Your task to perform on an android device: What's on my calendar today? Image 0: 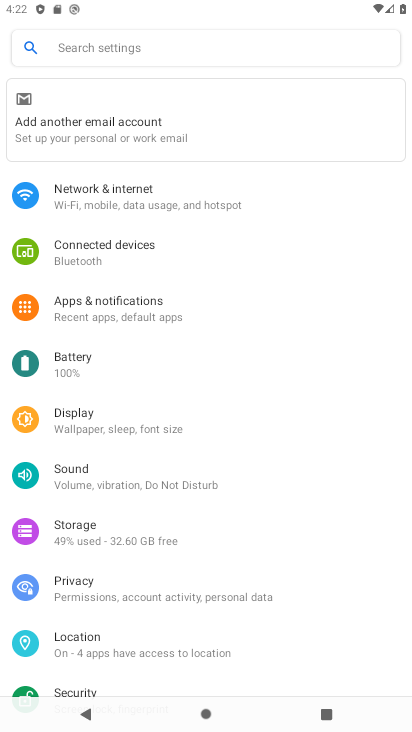
Step 0: press home button
Your task to perform on an android device: What's on my calendar today? Image 1: 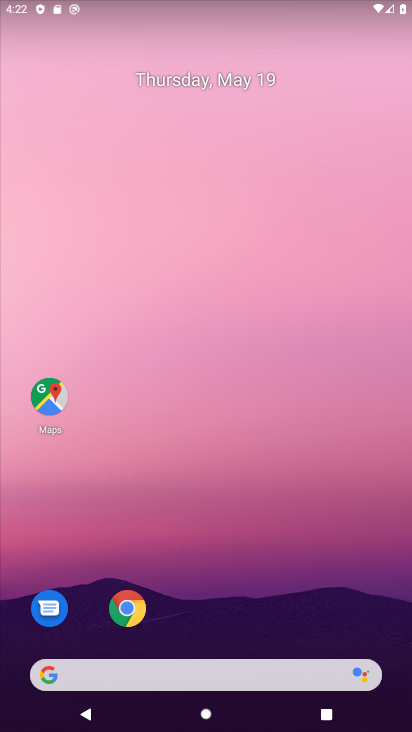
Step 1: drag from (271, 575) to (224, 192)
Your task to perform on an android device: What's on my calendar today? Image 2: 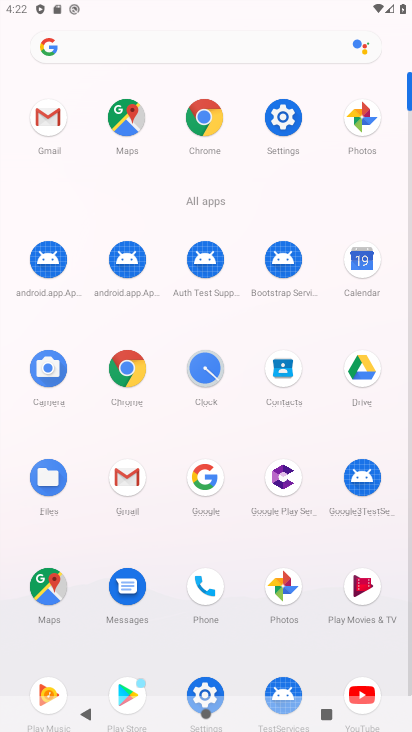
Step 2: click (350, 250)
Your task to perform on an android device: What's on my calendar today? Image 3: 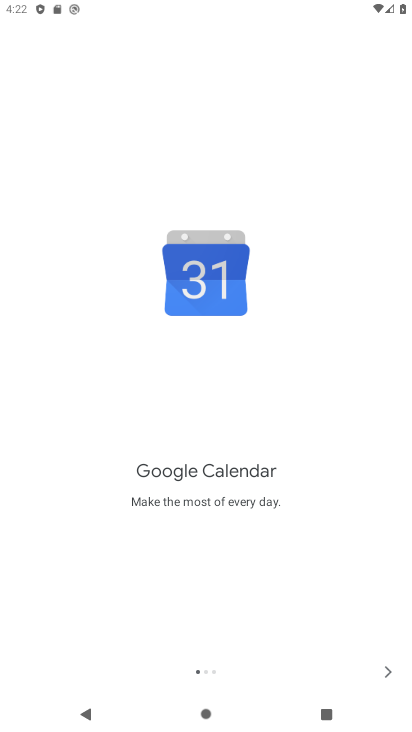
Step 3: click (386, 664)
Your task to perform on an android device: What's on my calendar today? Image 4: 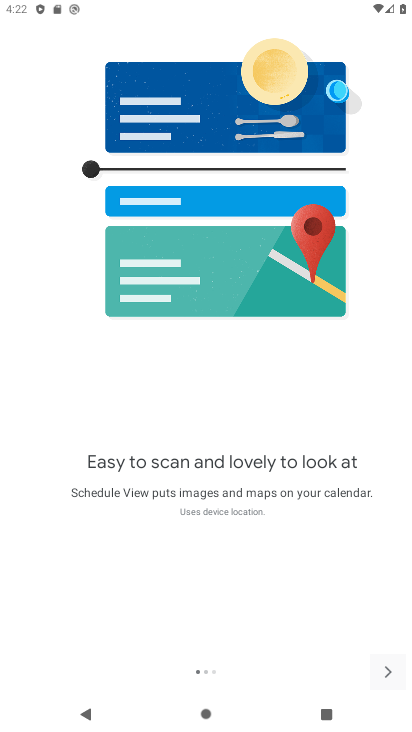
Step 4: click (385, 663)
Your task to perform on an android device: What's on my calendar today? Image 5: 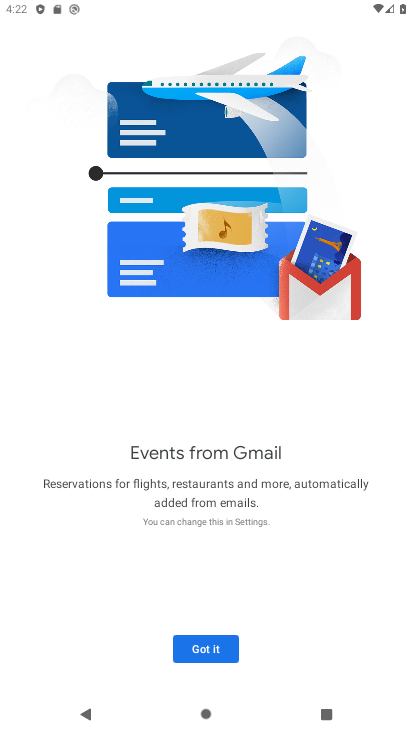
Step 5: click (211, 640)
Your task to perform on an android device: What's on my calendar today? Image 6: 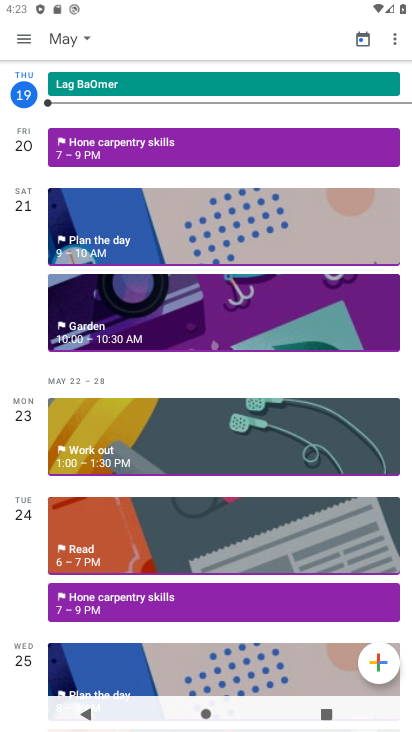
Step 6: click (23, 83)
Your task to perform on an android device: What's on my calendar today? Image 7: 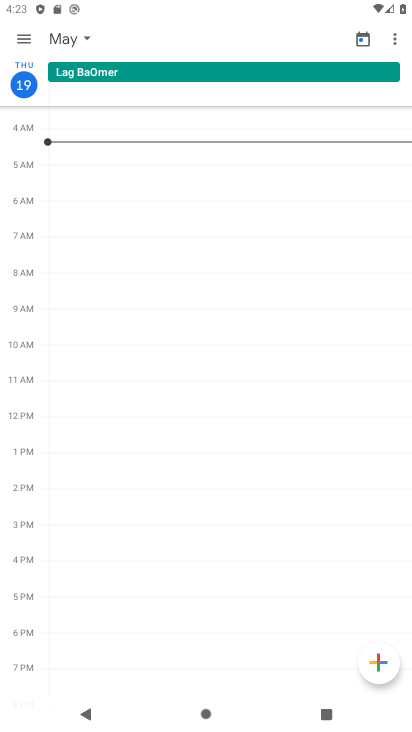
Step 7: task complete